Your task to perform on an android device: Show me popular videos on Youtube Image 0: 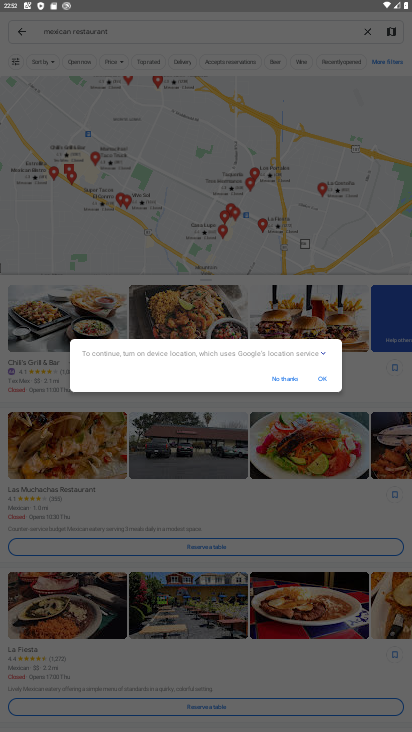
Step 0: press home button
Your task to perform on an android device: Show me popular videos on Youtube Image 1: 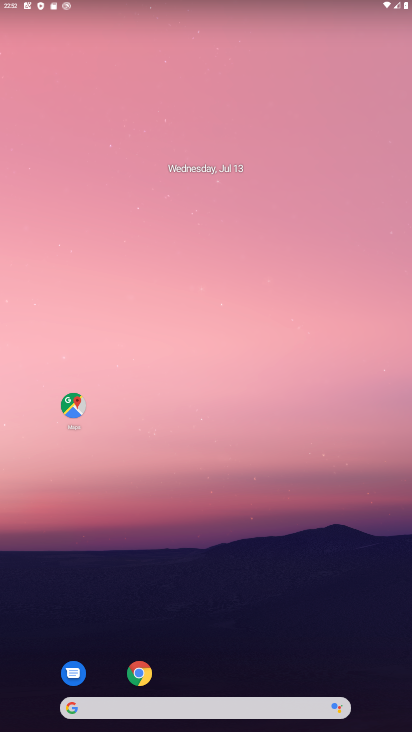
Step 1: drag from (247, 633) to (215, 267)
Your task to perform on an android device: Show me popular videos on Youtube Image 2: 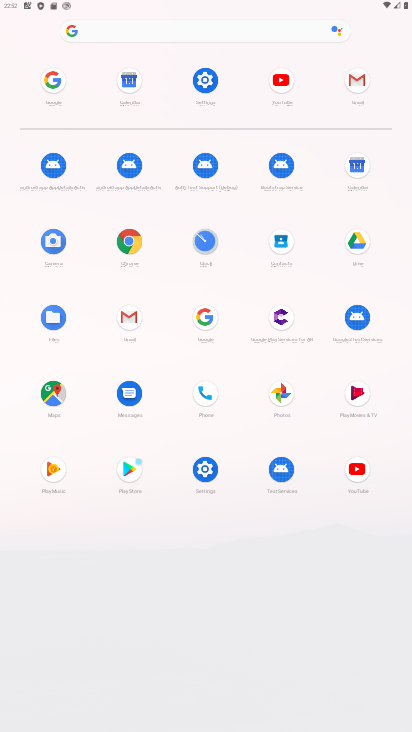
Step 2: click (272, 78)
Your task to perform on an android device: Show me popular videos on Youtube Image 3: 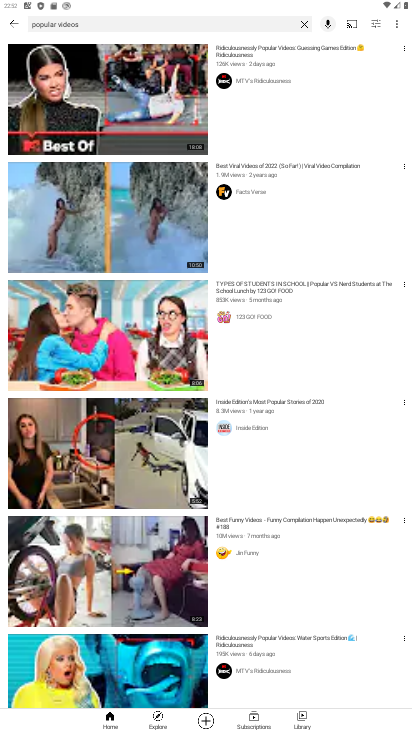
Step 3: task complete